Your task to perform on an android device: turn off notifications in google photos Image 0: 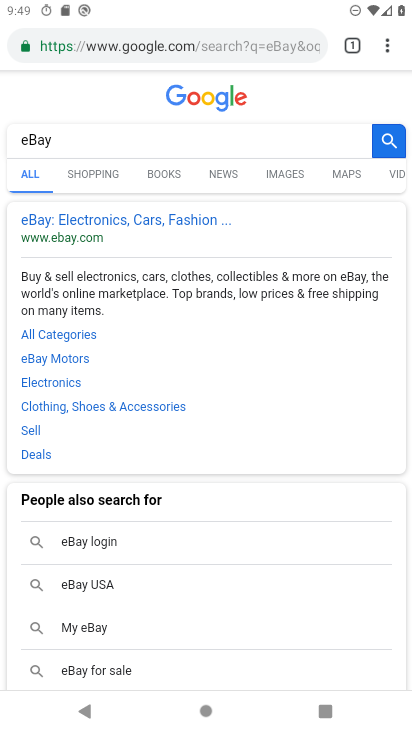
Step 0: press home button
Your task to perform on an android device: turn off notifications in google photos Image 1: 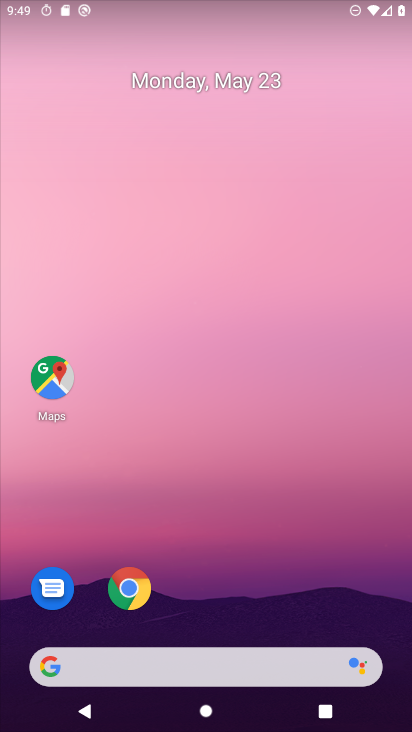
Step 1: drag from (391, 704) to (378, 294)
Your task to perform on an android device: turn off notifications in google photos Image 2: 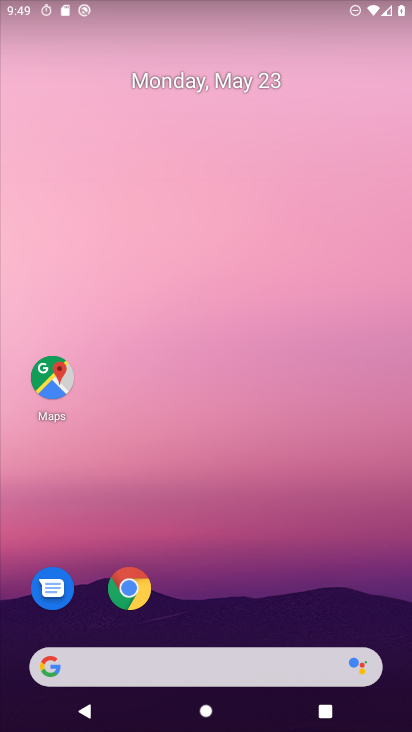
Step 2: drag from (399, 705) to (401, 225)
Your task to perform on an android device: turn off notifications in google photos Image 3: 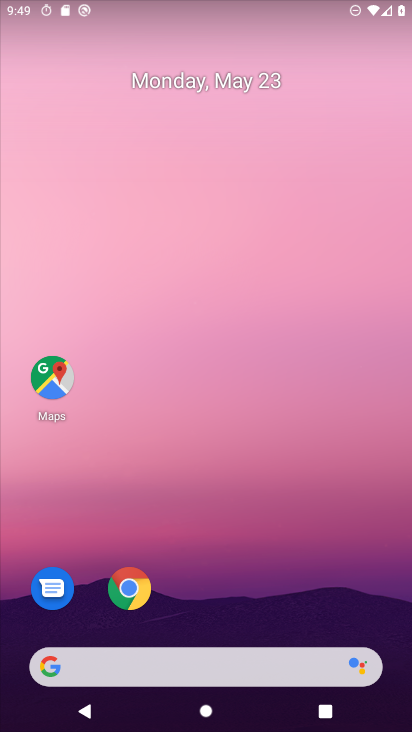
Step 3: drag from (402, 715) to (349, 119)
Your task to perform on an android device: turn off notifications in google photos Image 4: 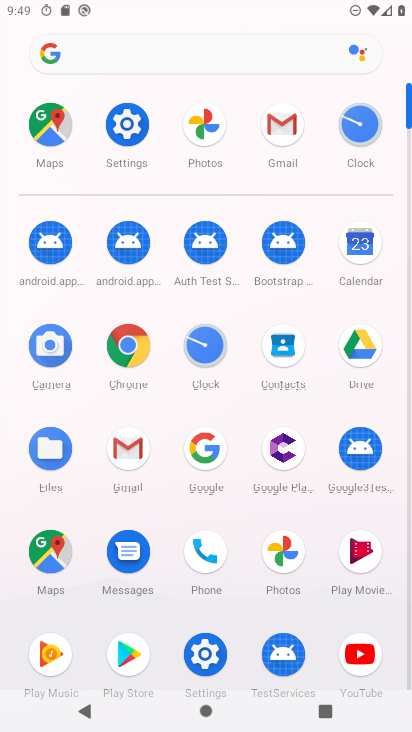
Step 4: click (283, 546)
Your task to perform on an android device: turn off notifications in google photos Image 5: 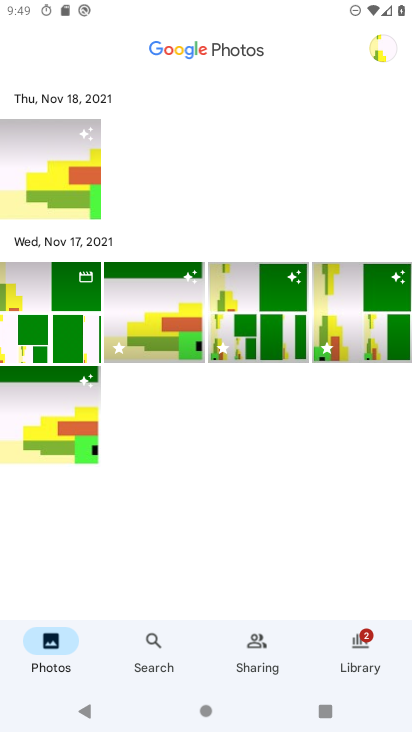
Step 5: click (391, 43)
Your task to perform on an android device: turn off notifications in google photos Image 6: 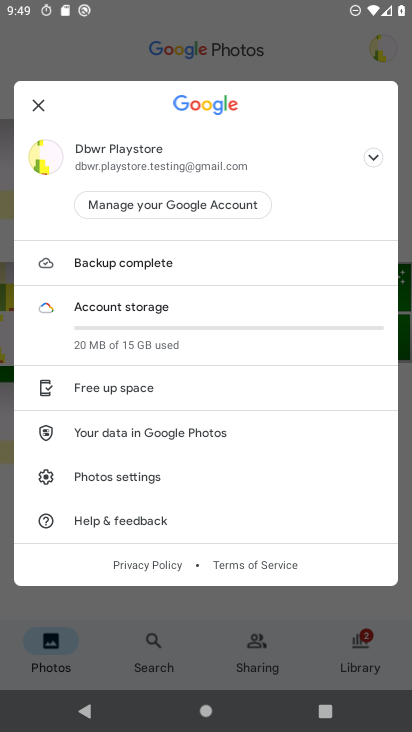
Step 6: click (130, 482)
Your task to perform on an android device: turn off notifications in google photos Image 7: 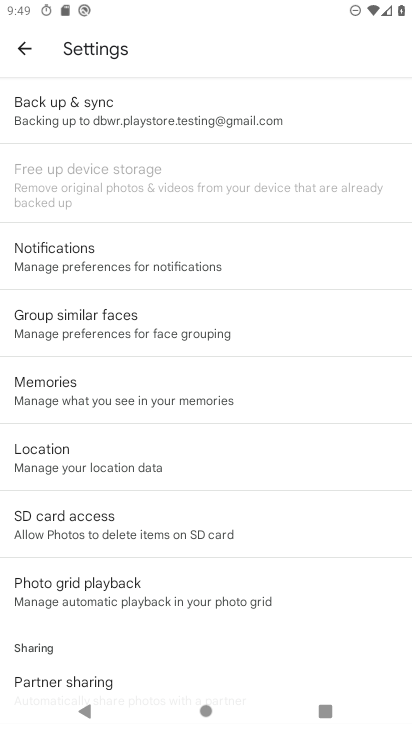
Step 7: click (66, 256)
Your task to perform on an android device: turn off notifications in google photos Image 8: 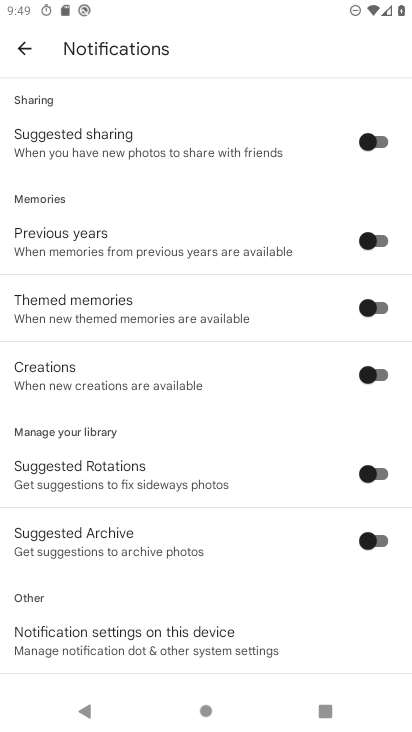
Step 8: click (382, 379)
Your task to perform on an android device: turn off notifications in google photos Image 9: 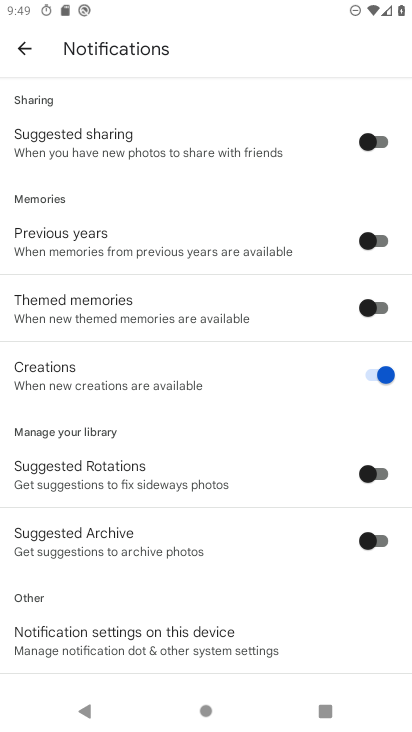
Step 9: click (363, 380)
Your task to perform on an android device: turn off notifications in google photos Image 10: 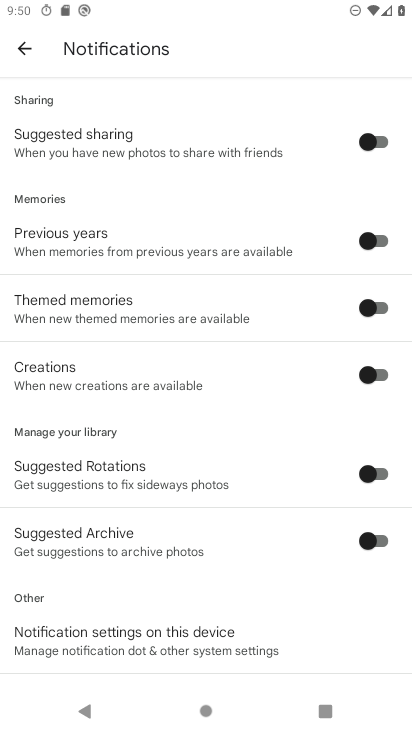
Step 10: task complete